Your task to perform on an android device: allow notifications from all sites in the chrome app Image 0: 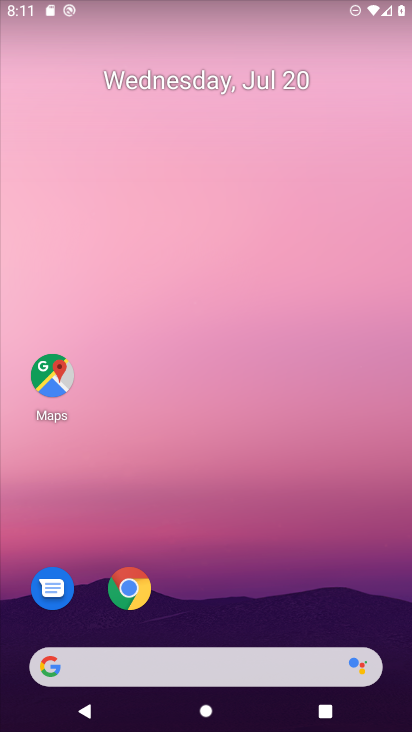
Step 0: click (114, 583)
Your task to perform on an android device: allow notifications from all sites in the chrome app Image 1: 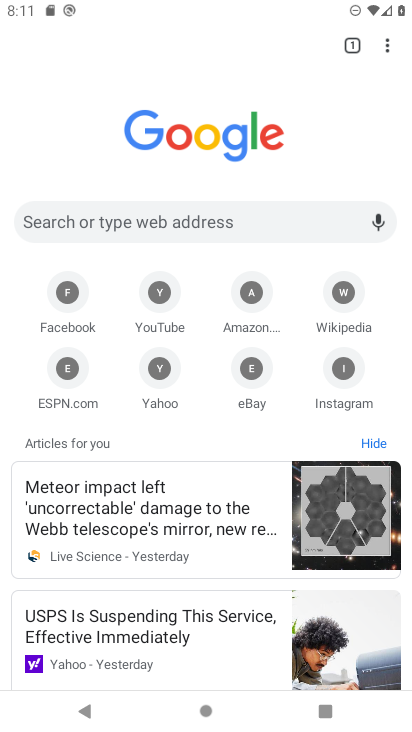
Step 1: click (391, 42)
Your task to perform on an android device: allow notifications from all sites in the chrome app Image 2: 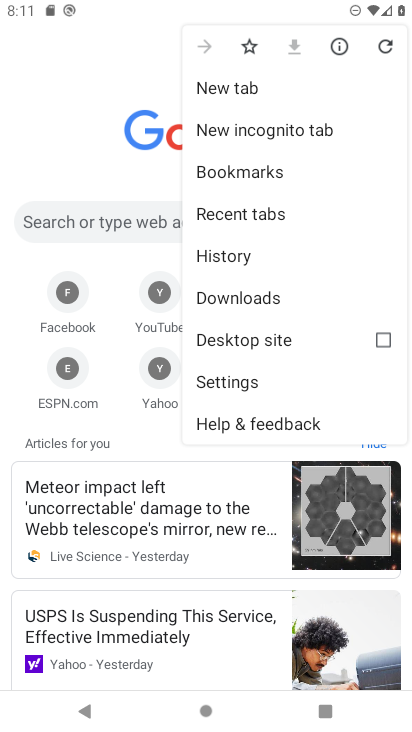
Step 2: click (239, 374)
Your task to perform on an android device: allow notifications from all sites in the chrome app Image 3: 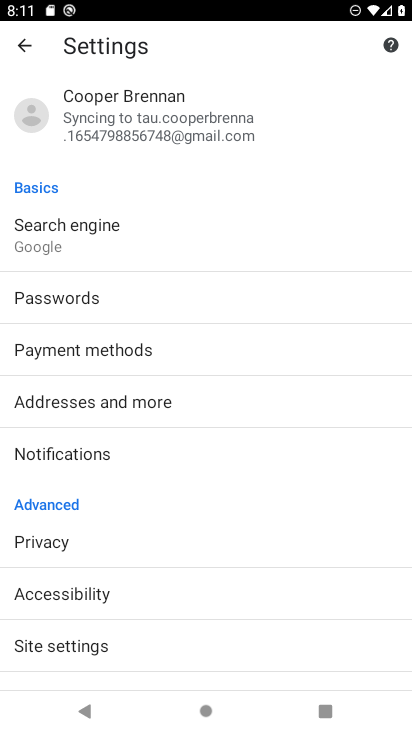
Step 3: click (28, 638)
Your task to perform on an android device: allow notifications from all sites in the chrome app Image 4: 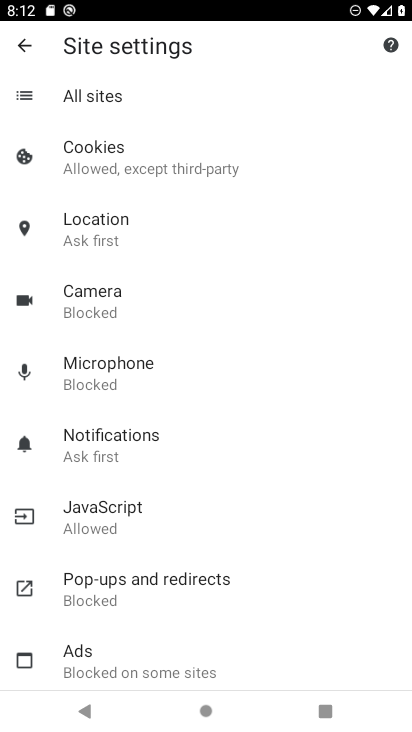
Step 4: click (114, 456)
Your task to perform on an android device: allow notifications from all sites in the chrome app Image 5: 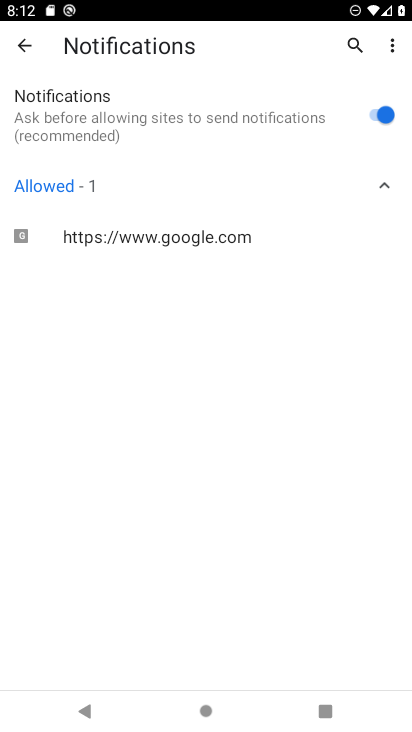
Step 5: task complete